Your task to perform on an android device: Is it going to rain tomorrow? Image 0: 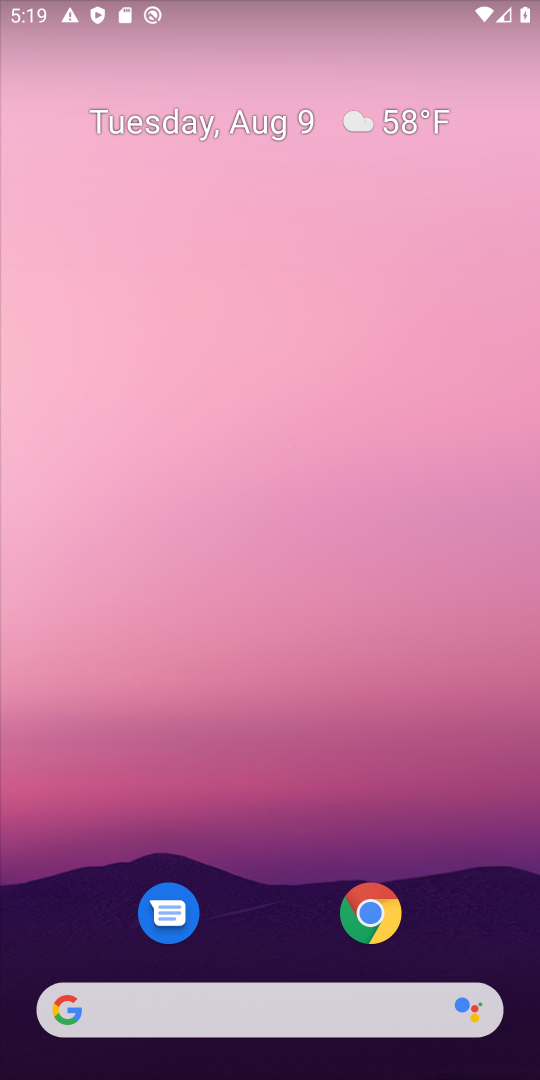
Step 0: click (247, 1004)
Your task to perform on an android device: Is it going to rain tomorrow? Image 1: 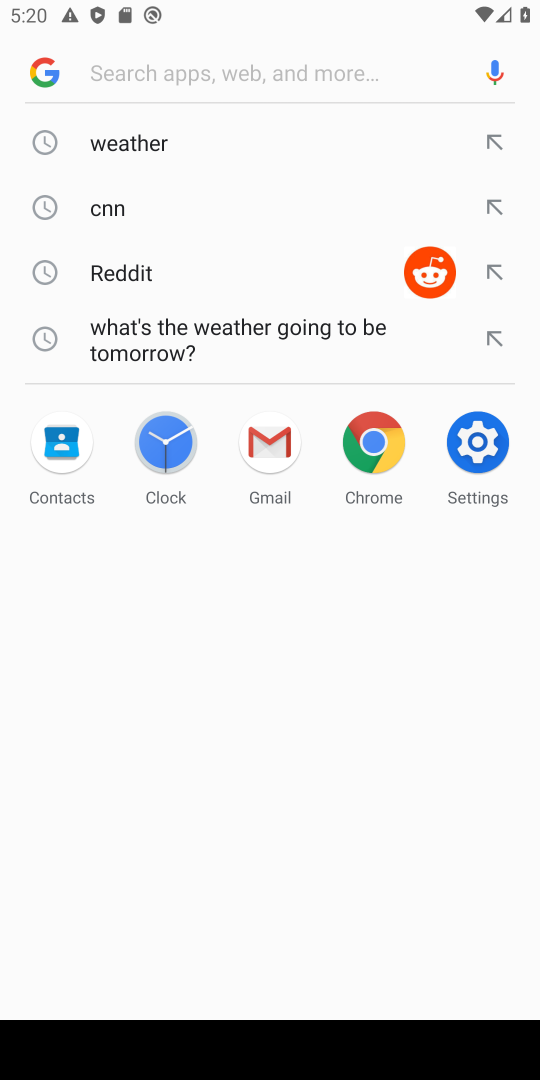
Step 1: type "is it going to rain tomorrow"
Your task to perform on an android device: Is it going to rain tomorrow? Image 2: 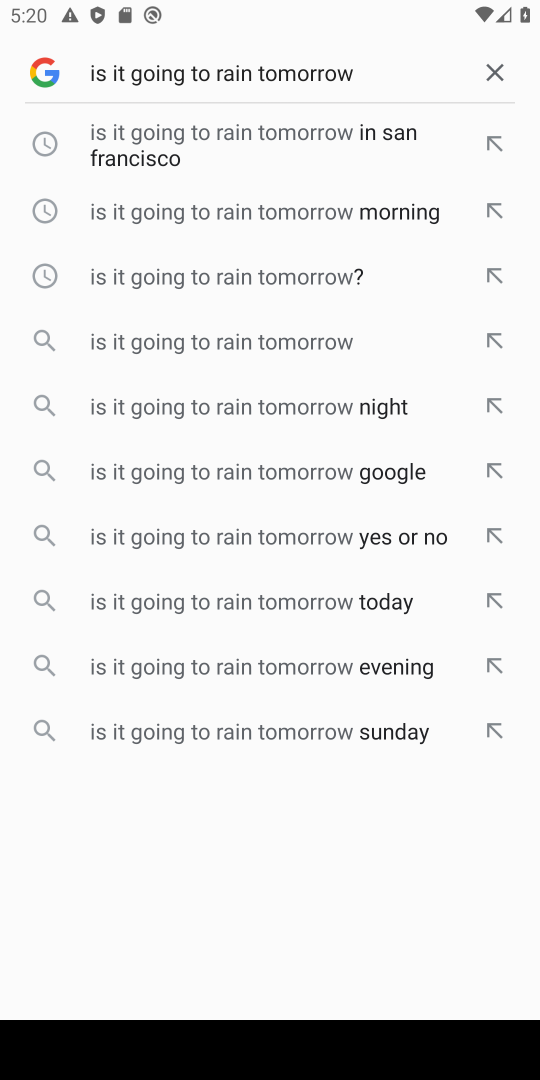
Step 2: click (209, 272)
Your task to perform on an android device: Is it going to rain tomorrow? Image 3: 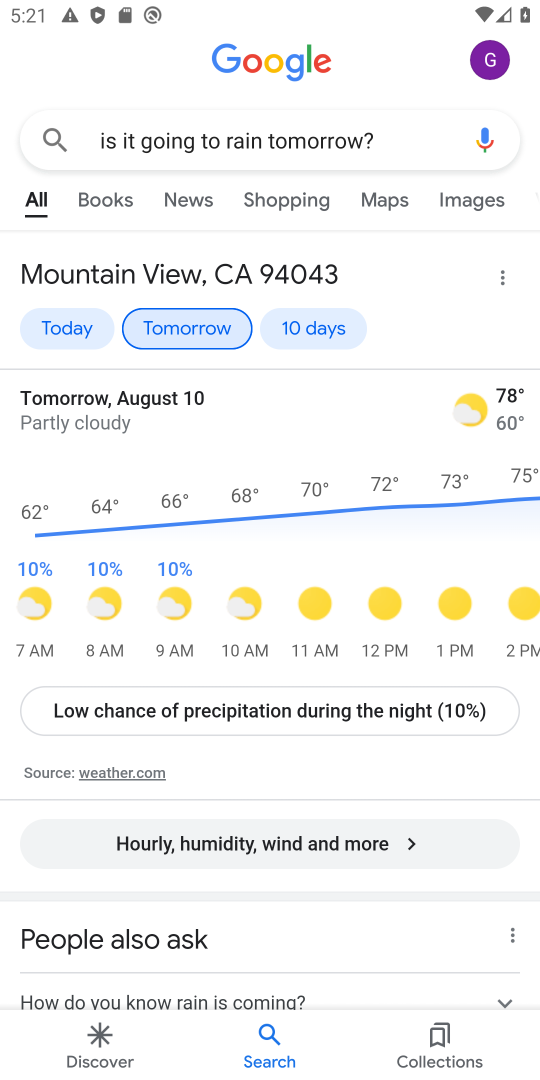
Step 3: task complete